Your task to perform on an android device: see creations saved in the google photos Image 0: 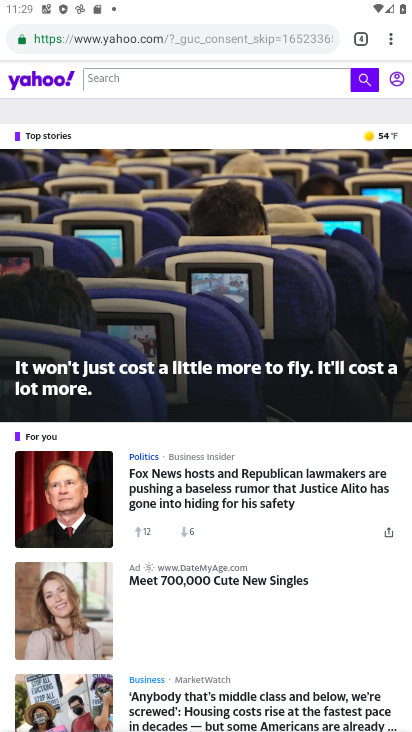
Step 0: press home button
Your task to perform on an android device: see creations saved in the google photos Image 1: 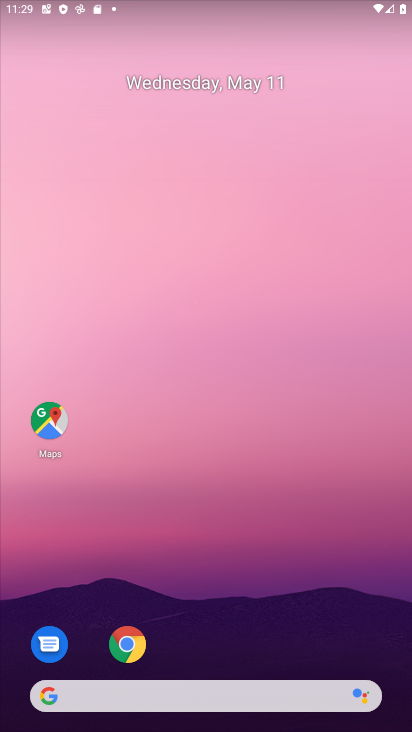
Step 1: drag from (293, 616) to (309, 37)
Your task to perform on an android device: see creations saved in the google photos Image 2: 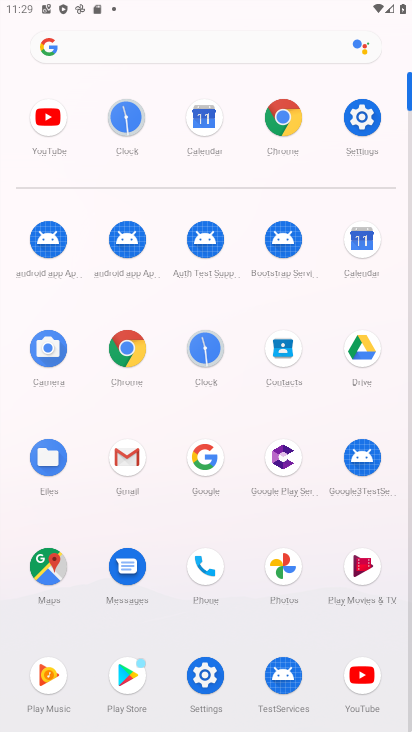
Step 2: click (279, 587)
Your task to perform on an android device: see creations saved in the google photos Image 3: 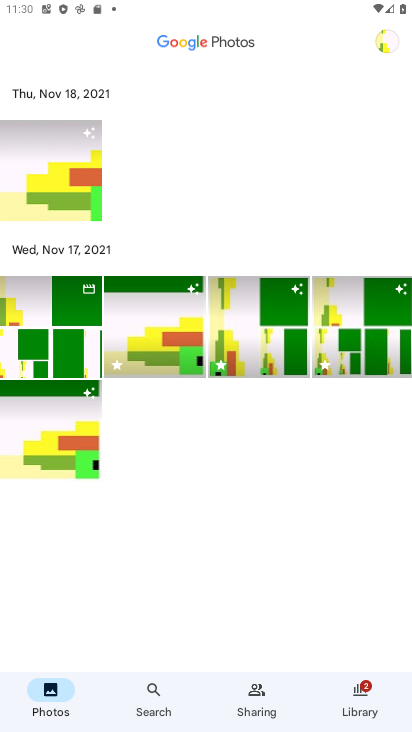
Step 3: task complete